Your task to perform on an android device: open sync settings in chrome Image 0: 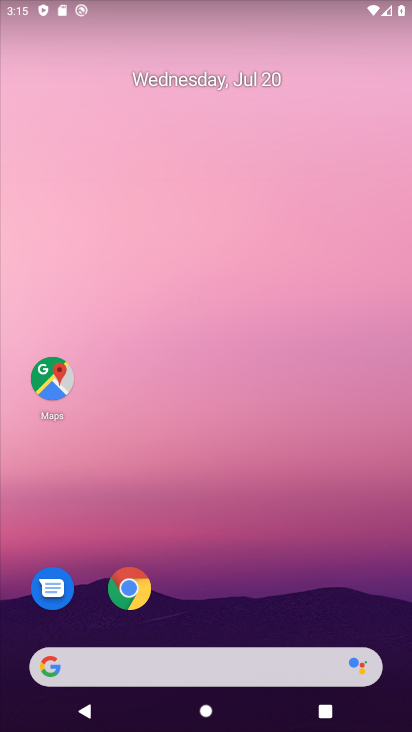
Step 0: drag from (314, 575) to (147, 17)
Your task to perform on an android device: open sync settings in chrome Image 1: 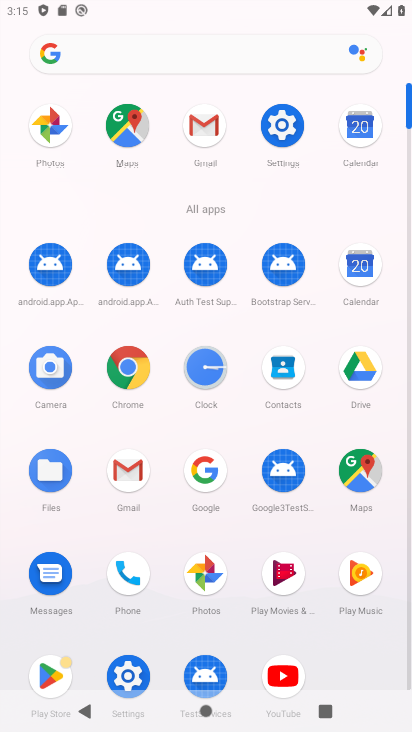
Step 1: click (124, 373)
Your task to perform on an android device: open sync settings in chrome Image 2: 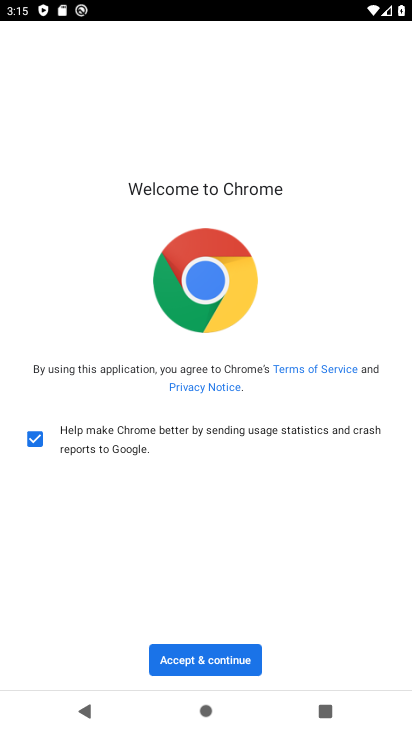
Step 2: click (220, 662)
Your task to perform on an android device: open sync settings in chrome Image 3: 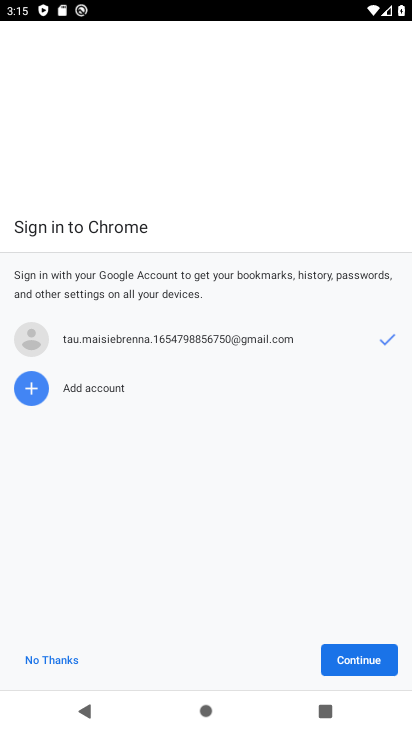
Step 3: click (335, 670)
Your task to perform on an android device: open sync settings in chrome Image 4: 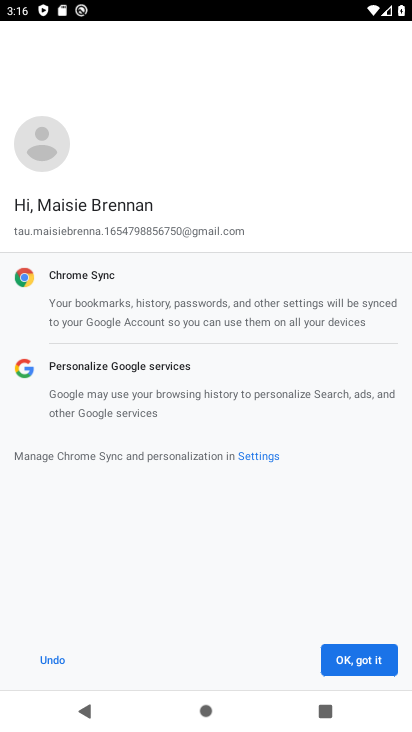
Step 4: click (349, 656)
Your task to perform on an android device: open sync settings in chrome Image 5: 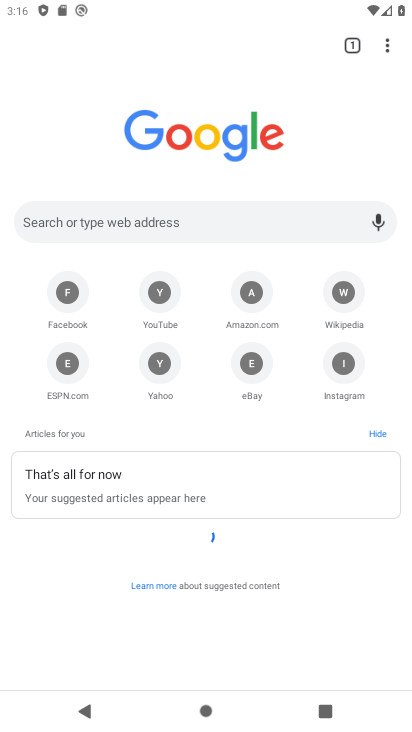
Step 5: drag from (392, 40) to (233, 377)
Your task to perform on an android device: open sync settings in chrome Image 6: 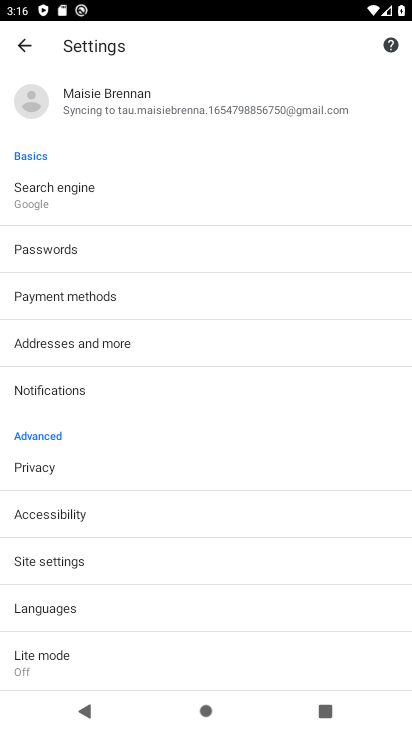
Step 6: click (106, 107)
Your task to perform on an android device: open sync settings in chrome Image 7: 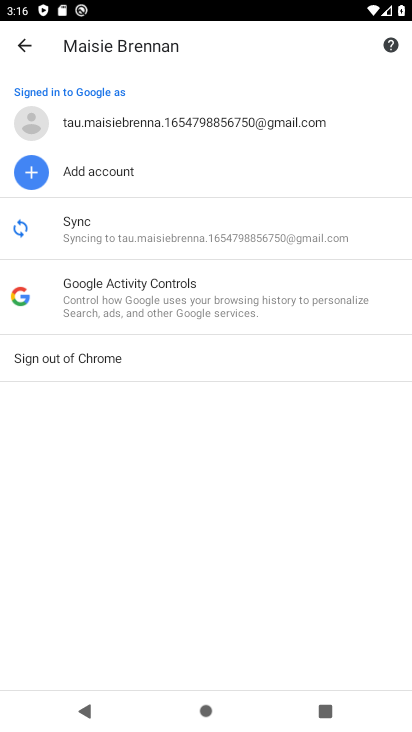
Step 7: click (153, 242)
Your task to perform on an android device: open sync settings in chrome Image 8: 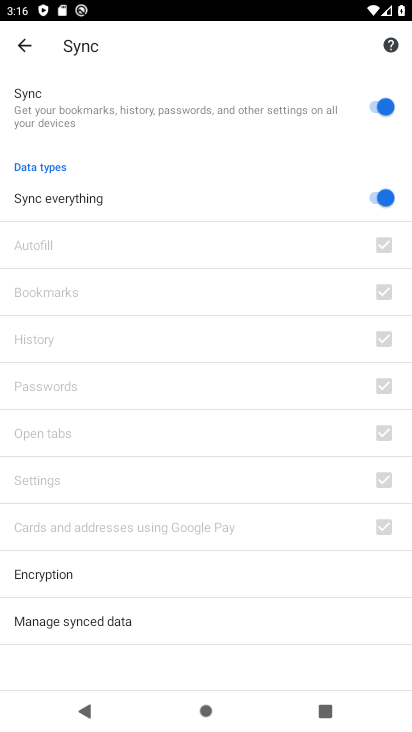
Step 8: task complete